Your task to perform on an android device: Open settings on Google Maps Image 0: 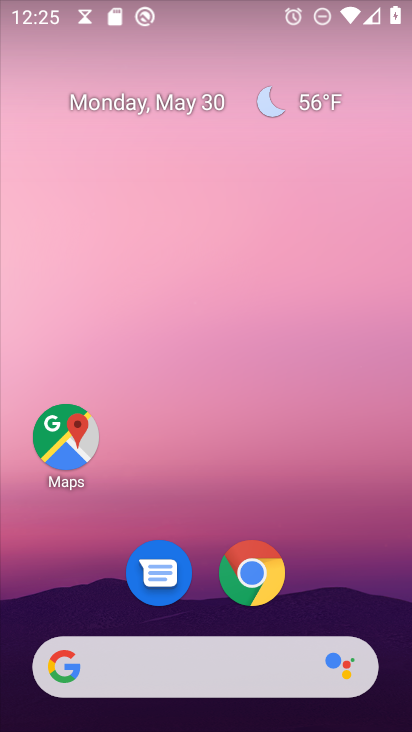
Step 0: drag from (309, 613) to (343, 41)
Your task to perform on an android device: Open settings on Google Maps Image 1: 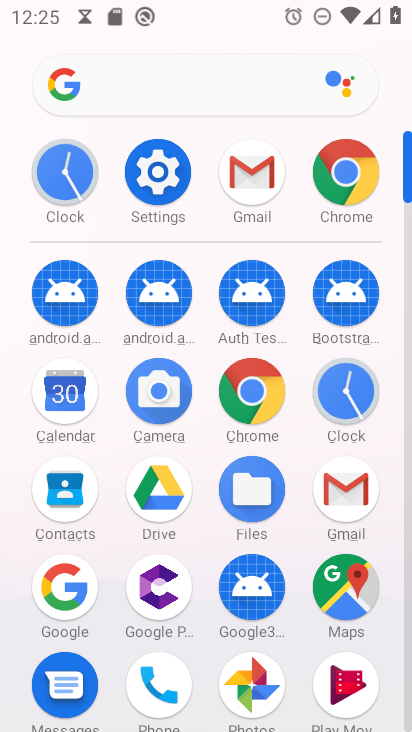
Step 1: click (365, 603)
Your task to perform on an android device: Open settings on Google Maps Image 2: 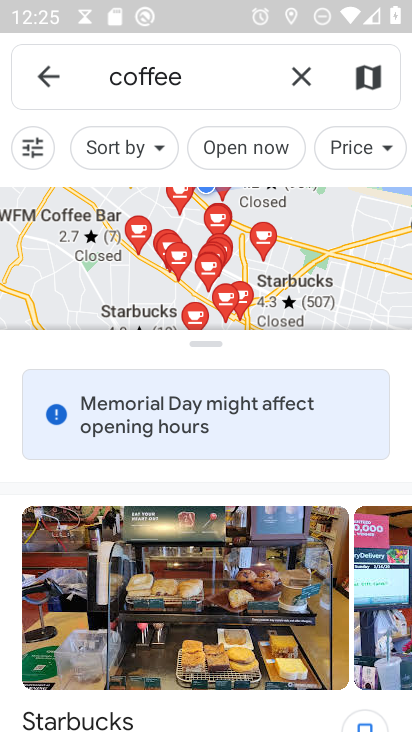
Step 2: press back button
Your task to perform on an android device: Open settings on Google Maps Image 3: 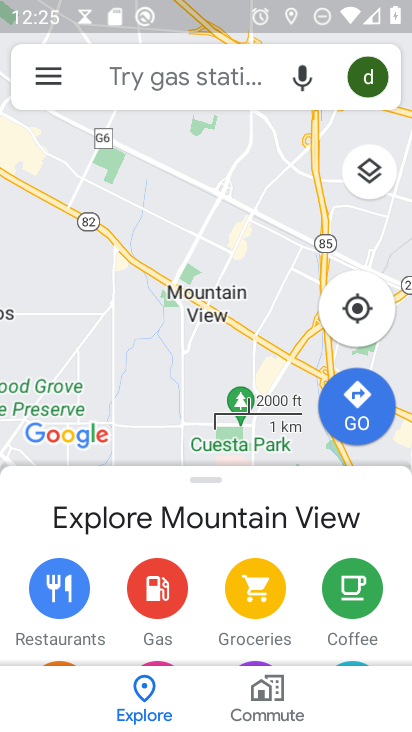
Step 3: click (61, 78)
Your task to perform on an android device: Open settings on Google Maps Image 4: 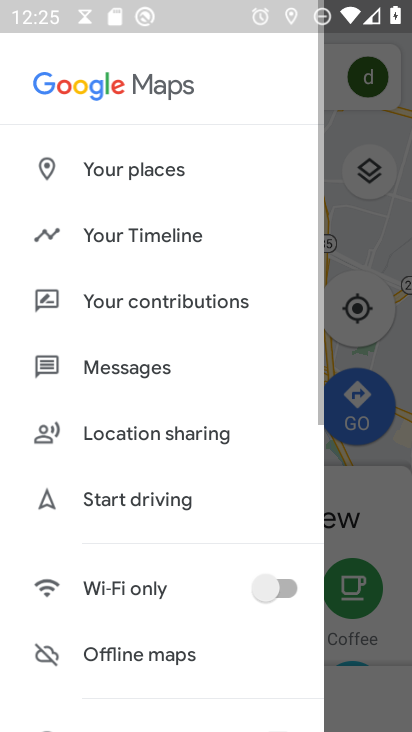
Step 4: drag from (206, 621) to (188, 110)
Your task to perform on an android device: Open settings on Google Maps Image 5: 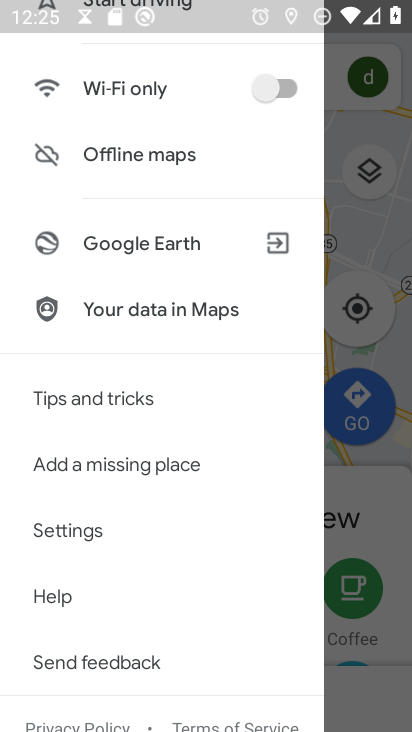
Step 5: drag from (237, 227) to (182, 719)
Your task to perform on an android device: Open settings on Google Maps Image 6: 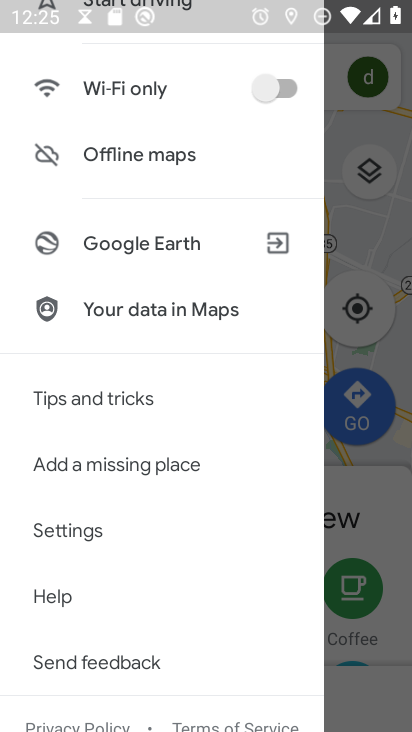
Step 6: click (330, 127)
Your task to perform on an android device: Open settings on Google Maps Image 7: 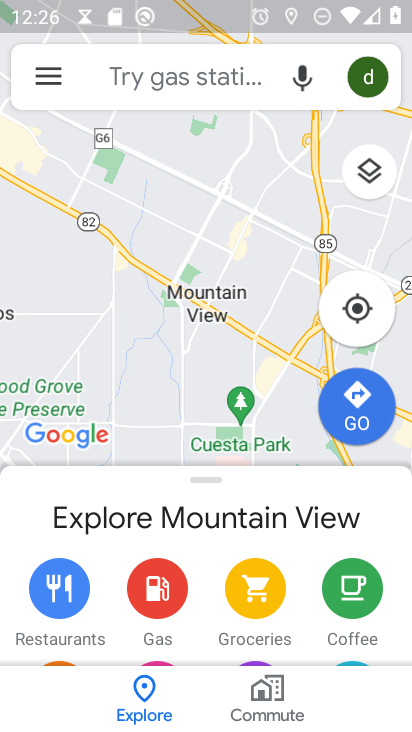
Step 7: click (365, 83)
Your task to perform on an android device: Open settings on Google Maps Image 8: 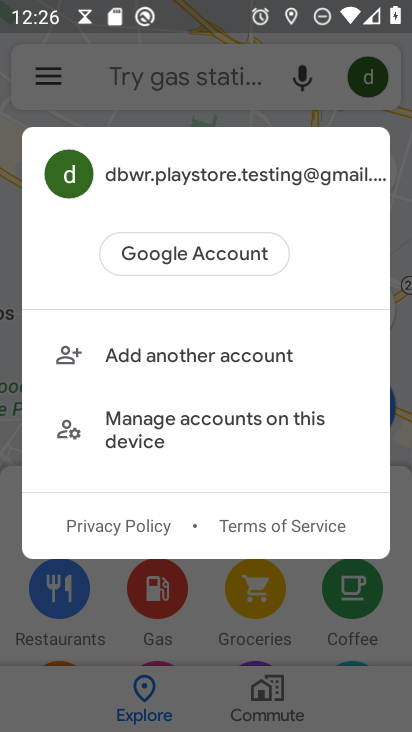
Step 8: drag from (268, 368) to (281, 171)
Your task to perform on an android device: Open settings on Google Maps Image 9: 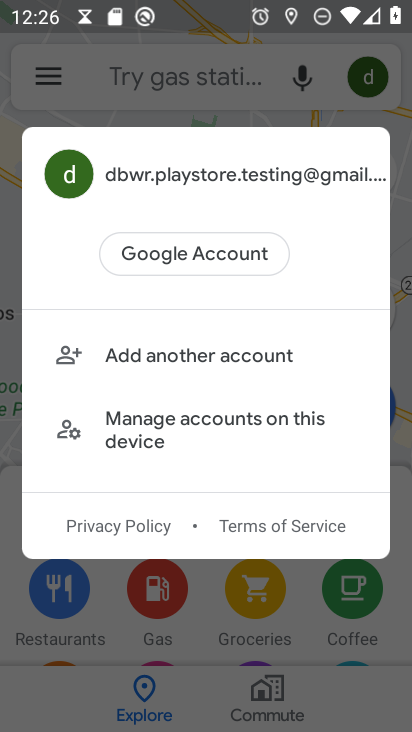
Step 9: click (408, 394)
Your task to perform on an android device: Open settings on Google Maps Image 10: 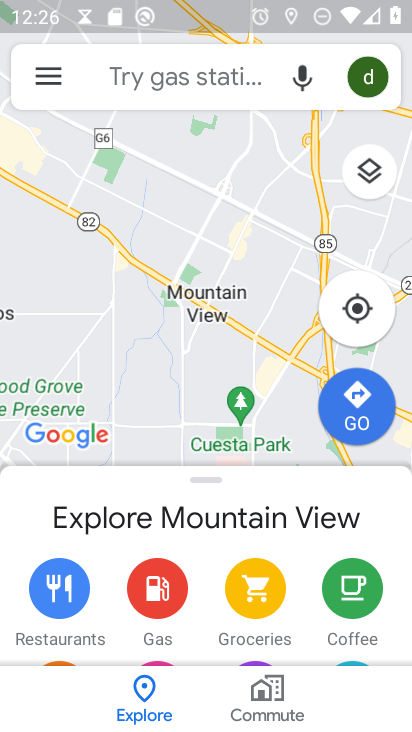
Step 10: click (41, 82)
Your task to perform on an android device: Open settings on Google Maps Image 11: 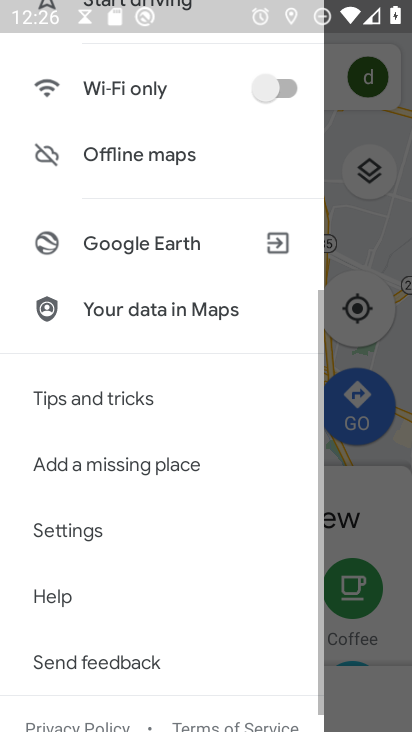
Step 11: drag from (158, 226) to (111, 707)
Your task to perform on an android device: Open settings on Google Maps Image 12: 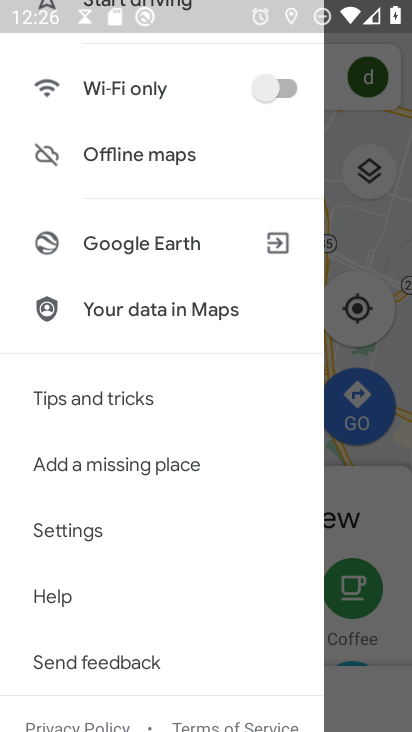
Step 12: drag from (160, 205) to (167, 731)
Your task to perform on an android device: Open settings on Google Maps Image 13: 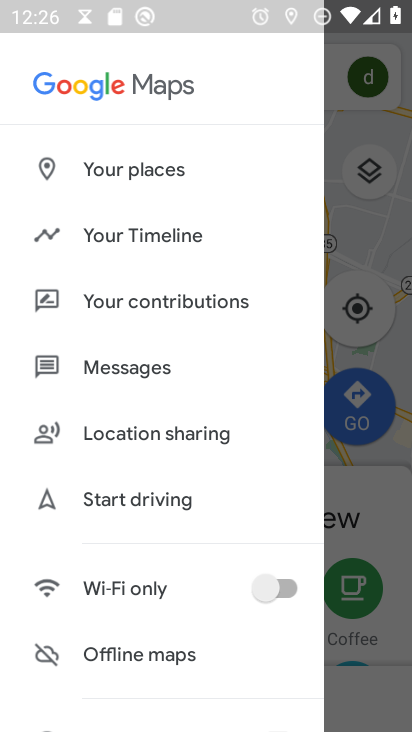
Step 13: click (255, 66)
Your task to perform on an android device: Open settings on Google Maps Image 14: 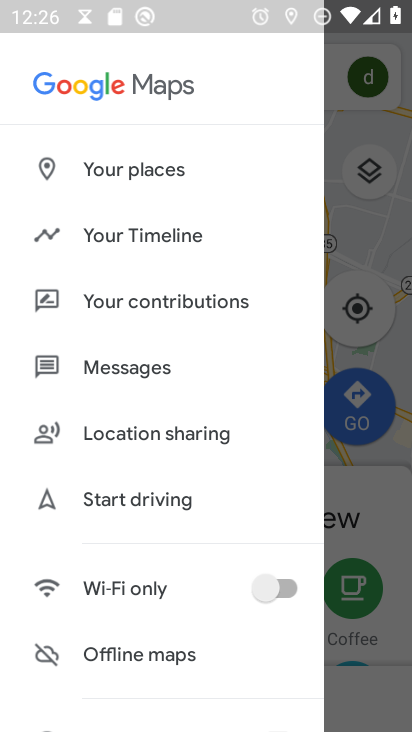
Step 14: click (199, 226)
Your task to perform on an android device: Open settings on Google Maps Image 15: 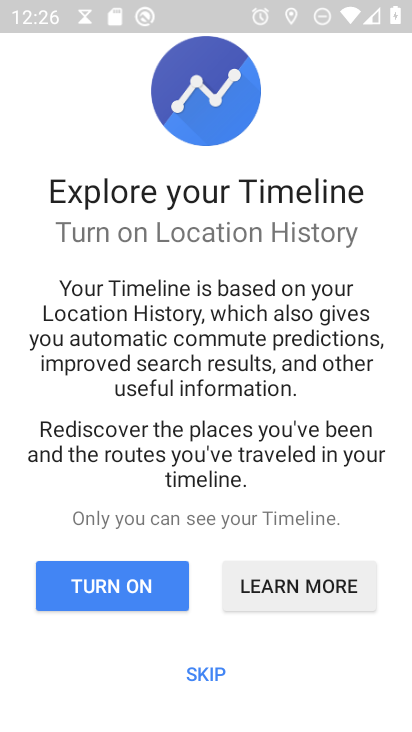
Step 15: click (195, 661)
Your task to perform on an android device: Open settings on Google Maps Image 16: 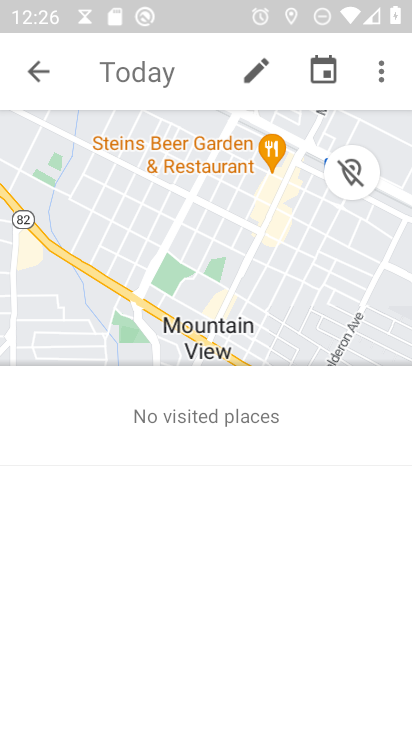
Step 16: click (389, 81)
Your task to perform on an android device: Open settings on Google Maps Image 17: 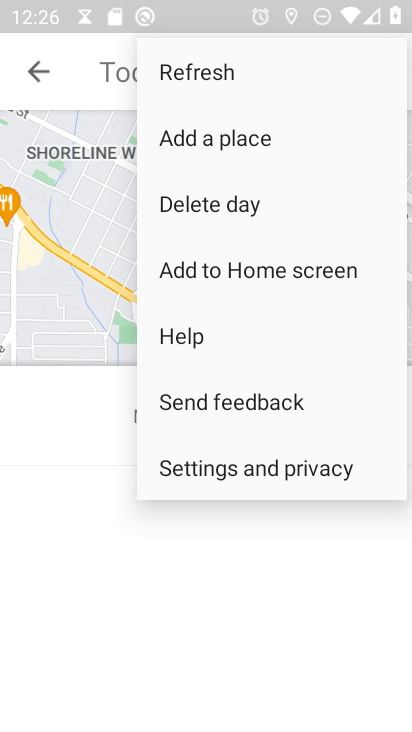
Step 17: click (247, 471)
Your task to perform on an android device: Open settings on Google Maps Image 18: 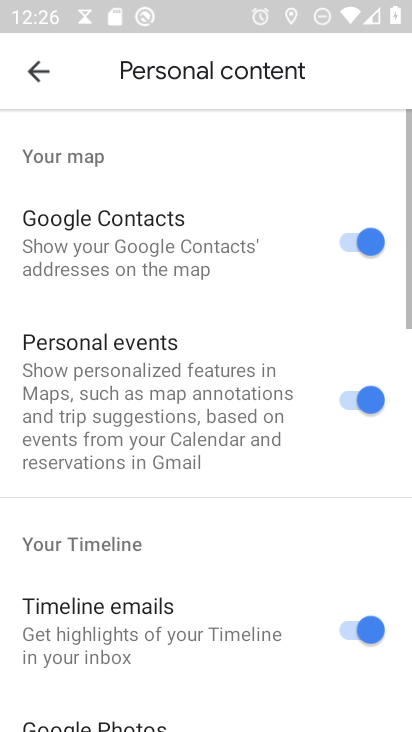
Step 18: task complete